Your task to perform on an android device: toggle notification dots Image 0: 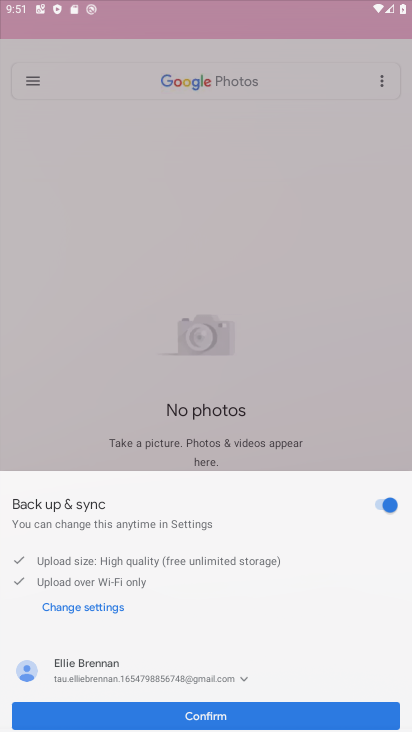
Step 0: press home button
Your task to perform on an android device: toggle notification dots Image 1: 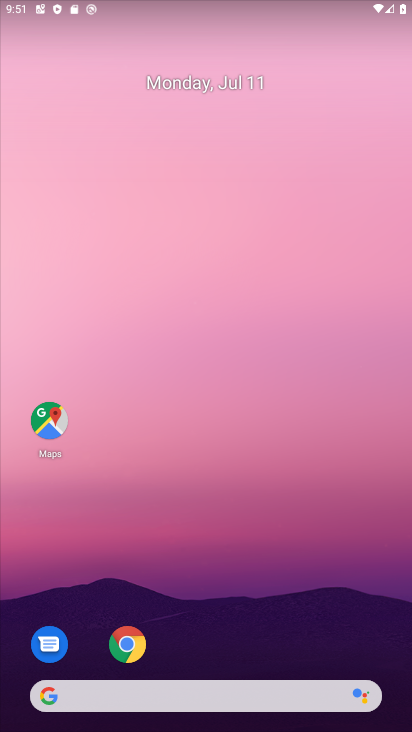
Step 1: drag from (209, 661) to (185, 9)
Your task to perform on an android device: toggle notification dots Image 2: 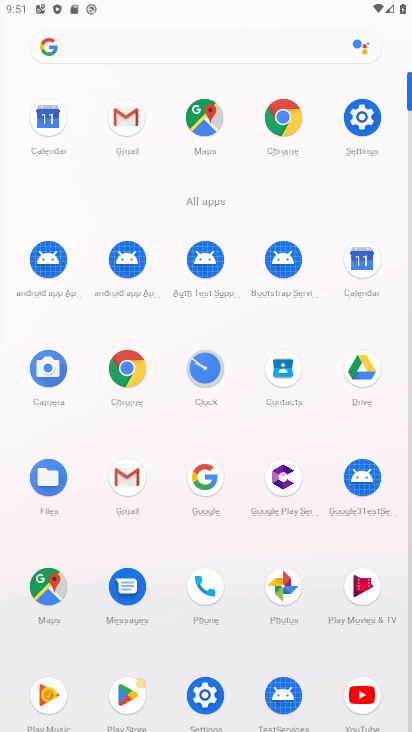
Step 2: click (358, 110)
Your task to perform on an android device: toggle notification dots Image 3: 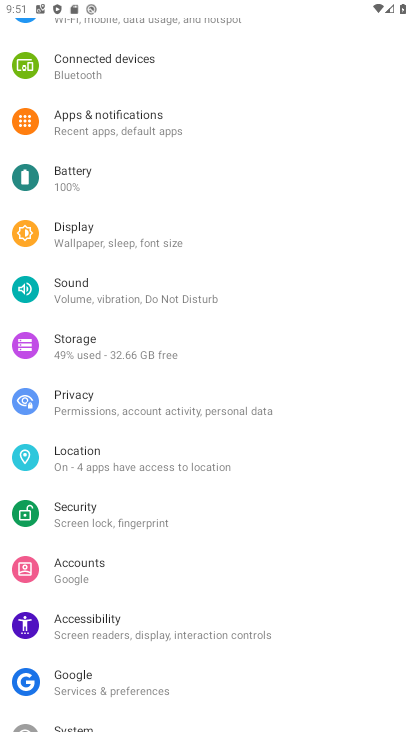
Step 3: click (174, 109)
Your task to perform on an android device: toggle notification dots Image 4: 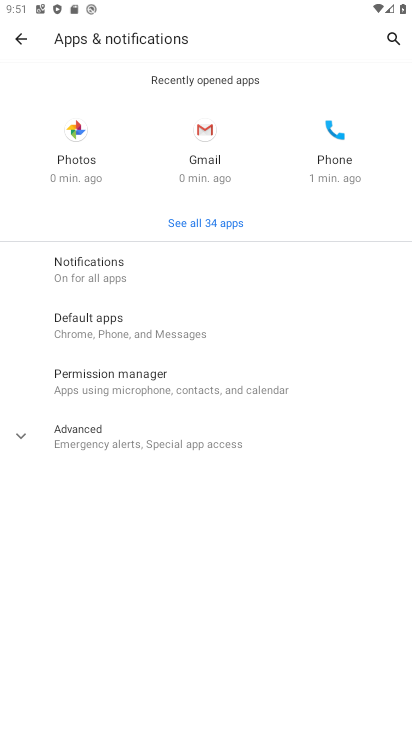
Step 4: click (142, 261)
Your task to perform on an android device: toggle notification dots Image 5: 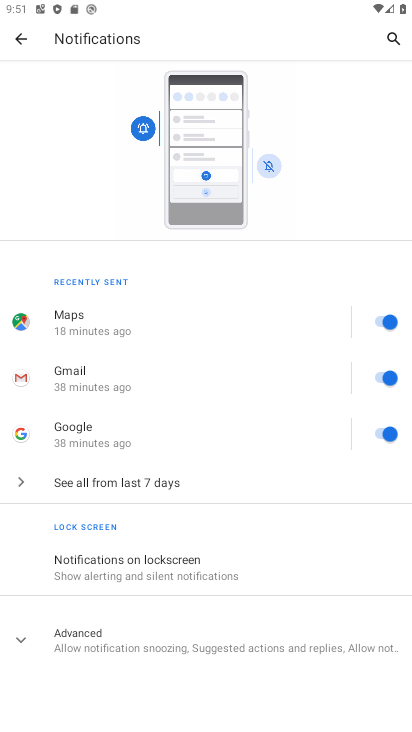
Step 5: click (26, 637)
Your task to perform on an android device: toggle notification dots Image 6: 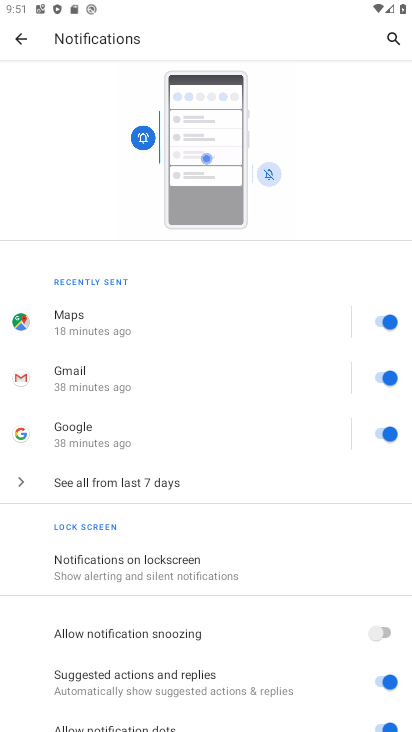
Step 6: drag from (189, 653) to (191, 158)
Your task to perform on an android device: toggle notification dots Image 7: 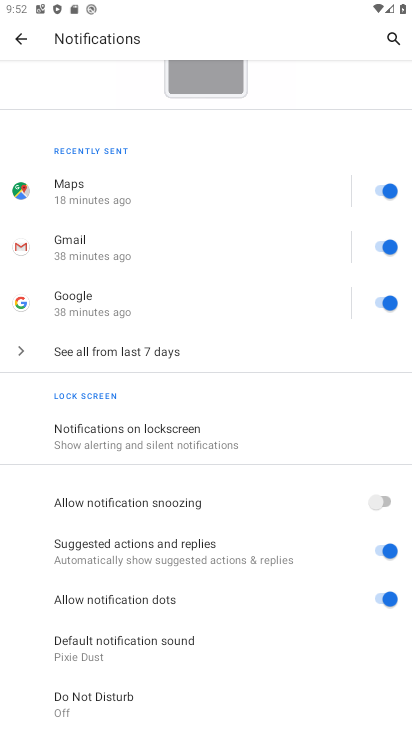
Step 7: click (379, 598)
Your task to perform on an android device: toggle notification dots Image 8: 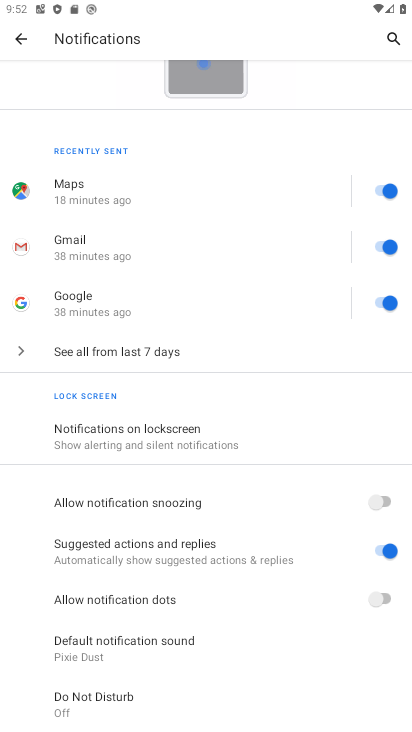
Step 8: task complete